Your task to perform on an android device: open app "Grab" Image 0: 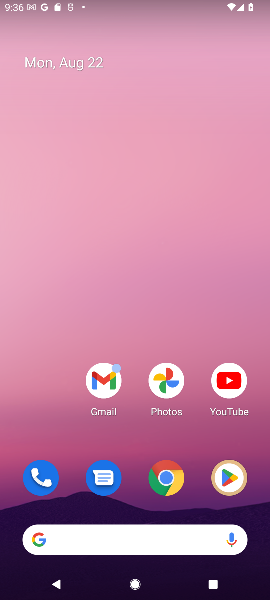
Step 0: click (211, 487)
Your task to perform on an android device: open app "Grab" Image 1: 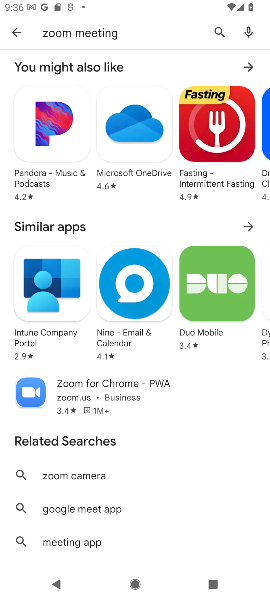
Step 1: click (215, 23)
Your task to perform on an android device: open app "Grab" Image 2: 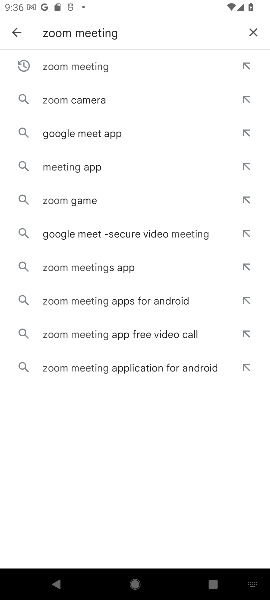
Step 2: click (256, 34)
Your task to perform on an android device: open app "Grab" Image 3: 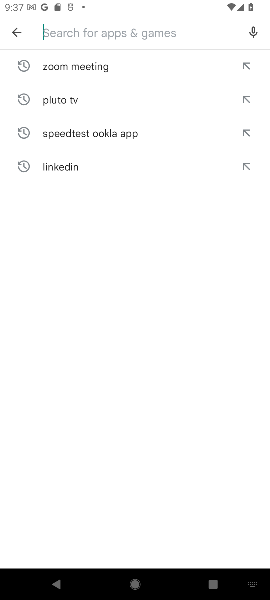
Step 3: type "grab"
Your task to perform on an android device: open app "Grab" Image 4: 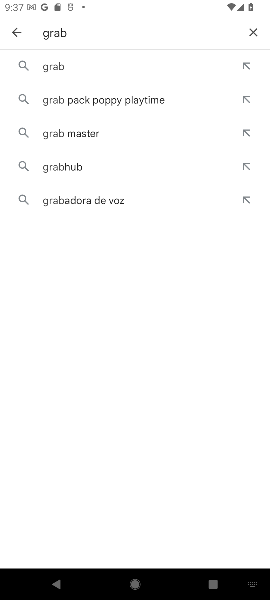
Step 4: click (130, 67)
Your task to perform on an android device: open app "Grab" Image 5: 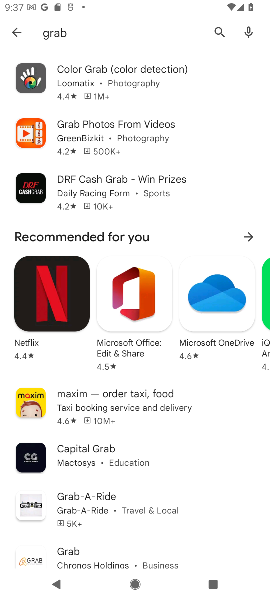
Step 5: task complete